Your task to perform on an android device: Open Maps and search for coffee Image 0: 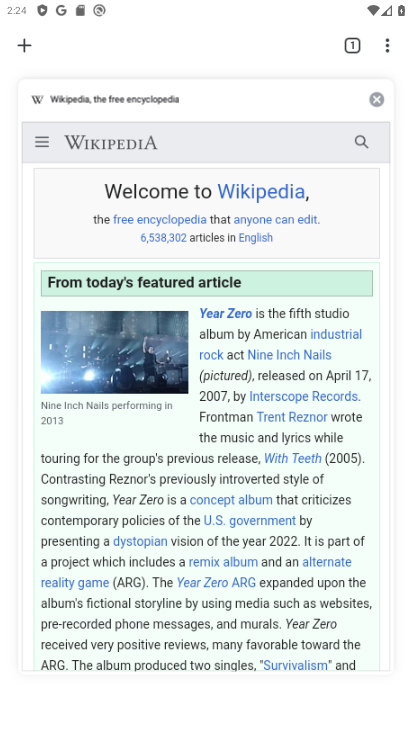
Step 0: press home button
Your task to perform on an android device: Open Maps and search for coffee Image 1: 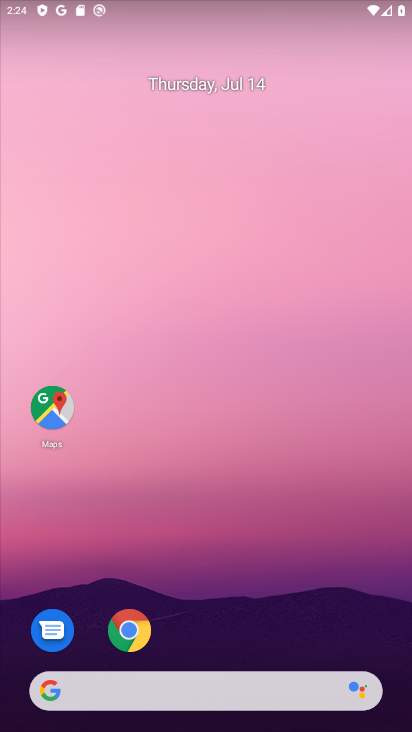
Step 1: drag from (196, 646) to (253, 163)
Your task to perform on an android device: Open Maps and search for coffee Image 2: 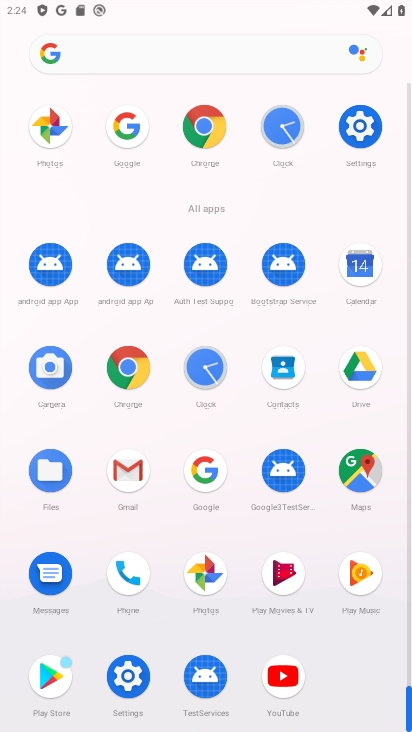
Step 2: click (367, 479)
Your task to perform on an android device: Open Maps and search for coffee Image 3: 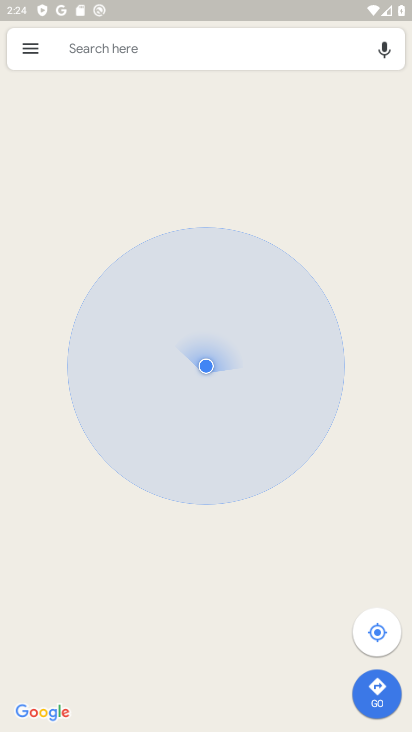
Step 3: click (129, 51)
Your task to perform on an android device: Open Maps and search for coffee Image 4: 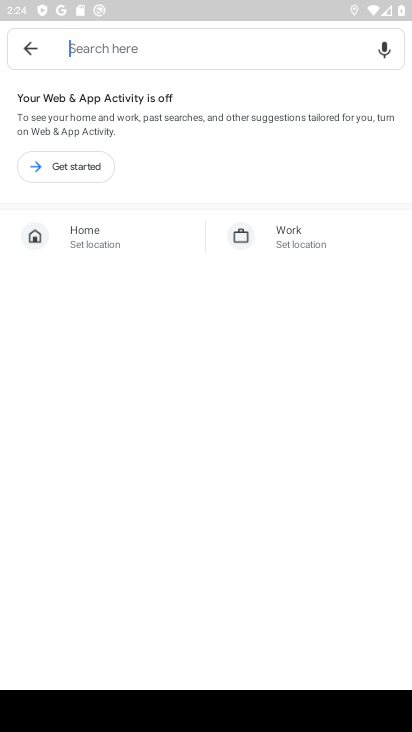
Step 4: type "Coffee"
Your task to perform on an android device: Open Maps and search for coffee Image 5: 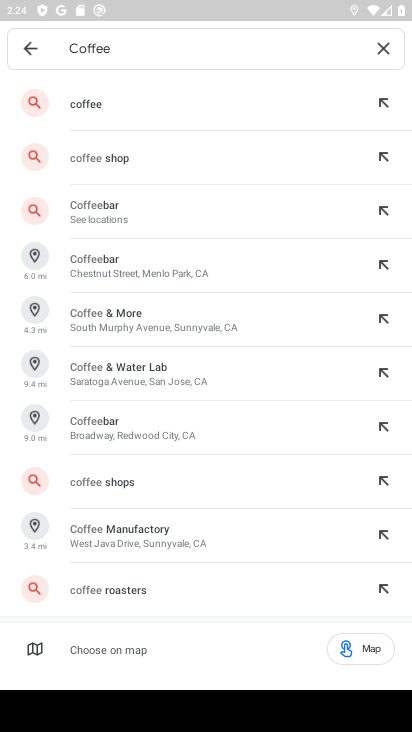
Step 5: click (132, 114)
Your task to perform on an android device: Open Maps and search for coffee Image 6: 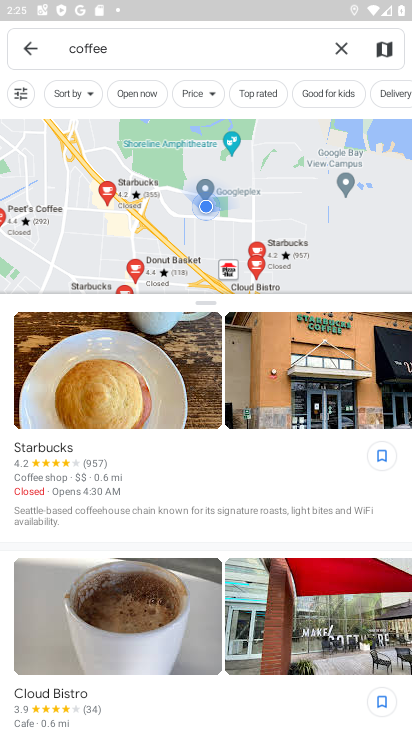
Step 6: task complete